Your task to perform on an android device: stop showing notifications on the lock screen Image 0: 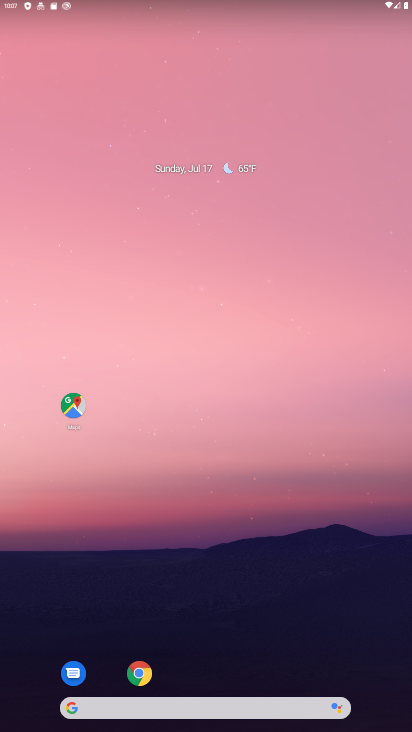
Step 0: drag from (155, 682) to (197, 193)
Your task to perform on an android device: stop showing notifications on the lock screen Image 1: 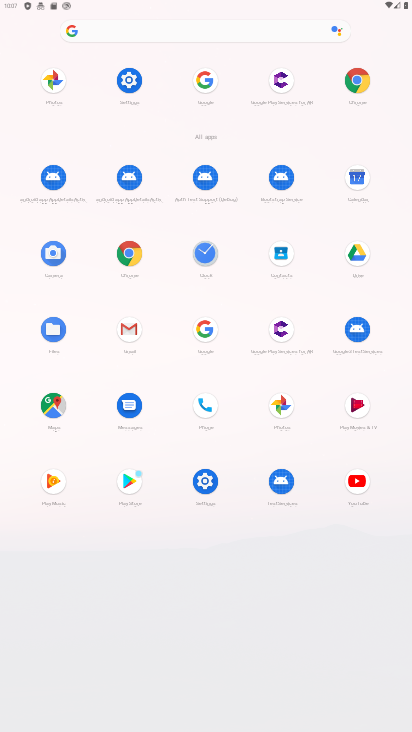
Step 1: click (211, 483)
Your task to perform on an android device: stop showing notifications on the lock screen Image 2: 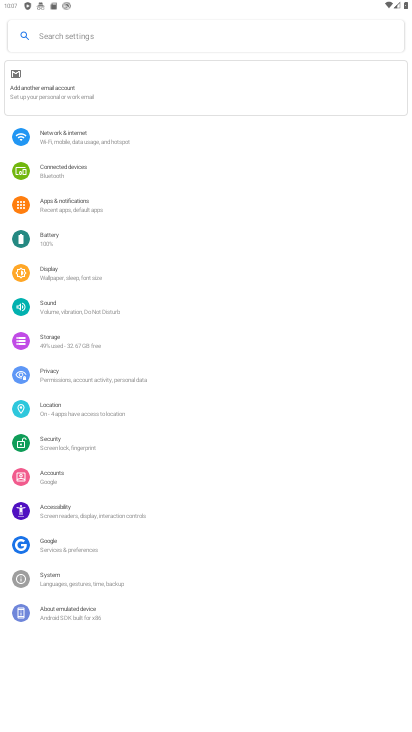
Step 2: click (108, 208)
Your task to perform on an android device: stop showing notifications on the lock screen Image 3: 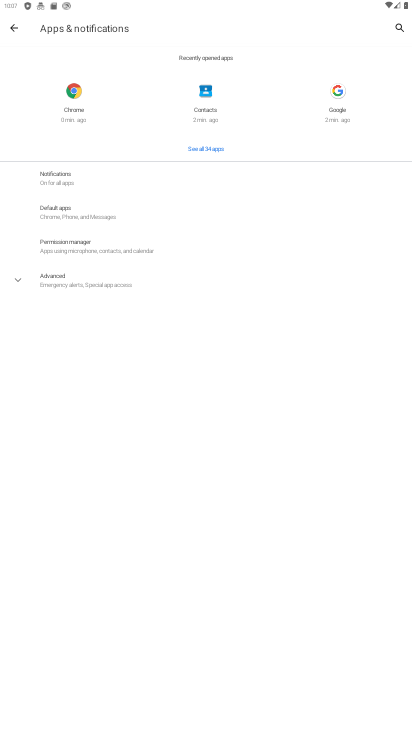
Step 3: click (91, 179)
Your task to perform on an android device: stop showing notifications on the lock screen Image 4: 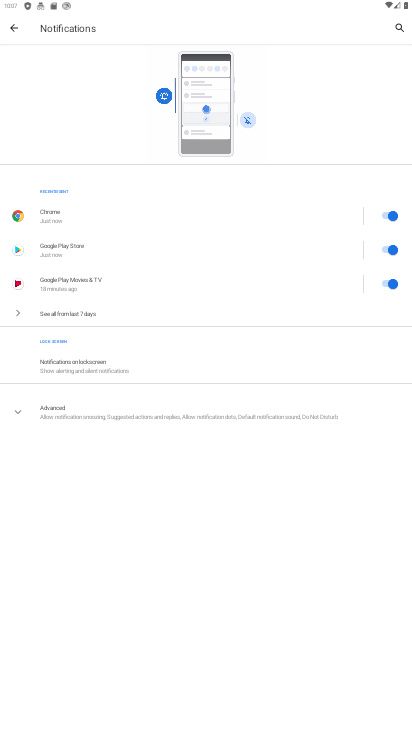
Step 4: click (115, 369)
Your task to perform on an android device: stop showing notifications on the lock screen Image 5: 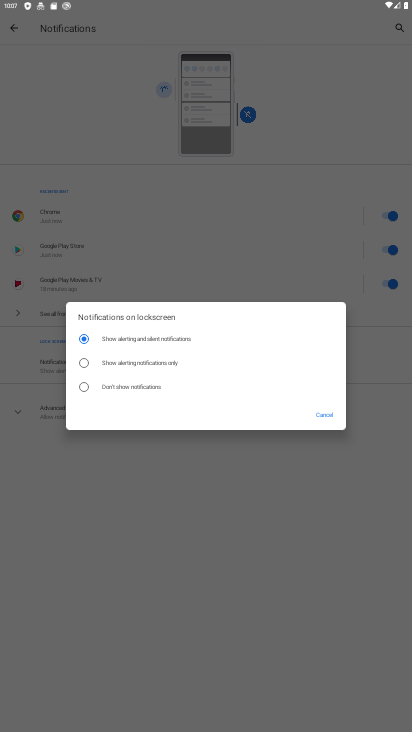
Step 5: click (113, 391)
Your task to perform on an android device: stop showing notifications on the lock screen Image 6: 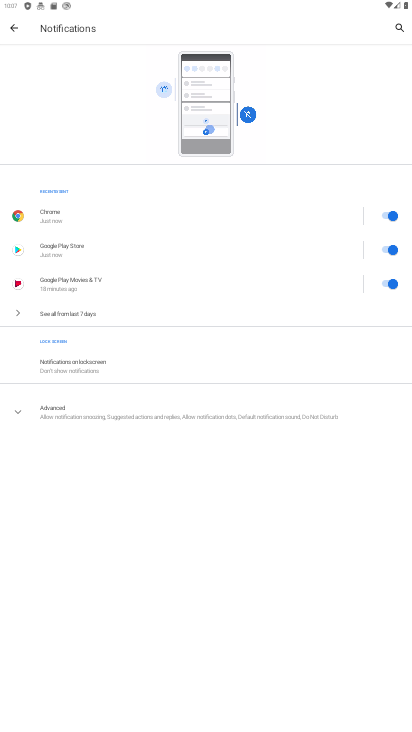
Step 6: task complete